Your task to perform on an android device: open the mobile data screen to see how much data has been used Image 0: 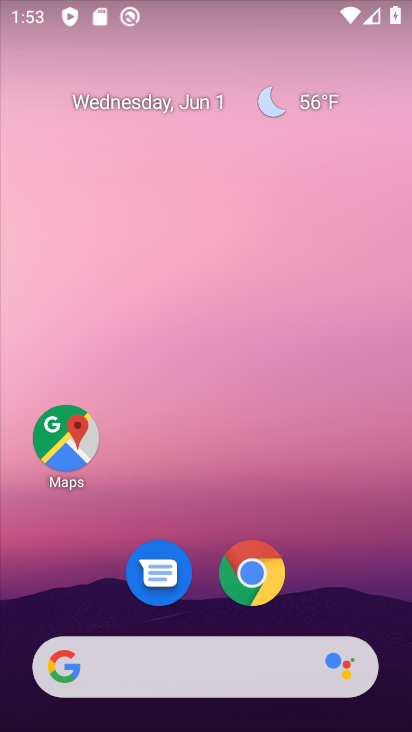
Step 0: drag from (321, 566) to (206, 6)
Your task to perform on an android device: open the mobile data screen to see how much data has been used Image 1: 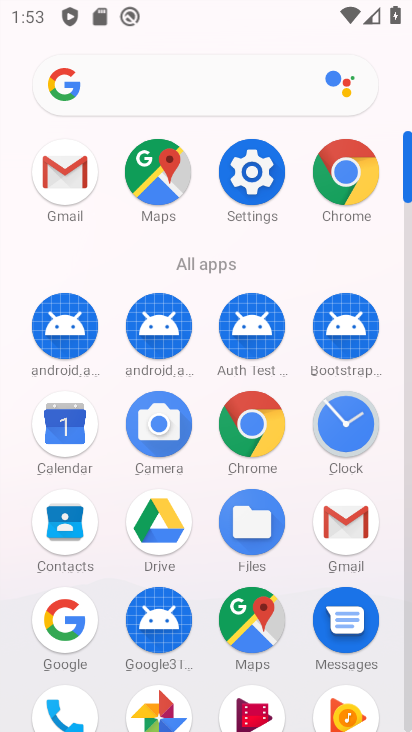
Step 1: click (259, 172)
Your task to perform on an android device: open the mobile data screen to see how much data has been used Image 2: 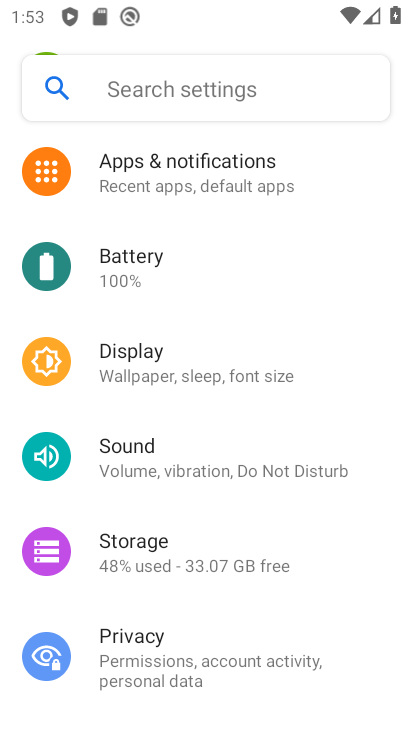
Step 2: drag from (239, 350) to (244, 642)
Your task to perform on an android device: open the mobile data screen to see how much data has been used Image 3: 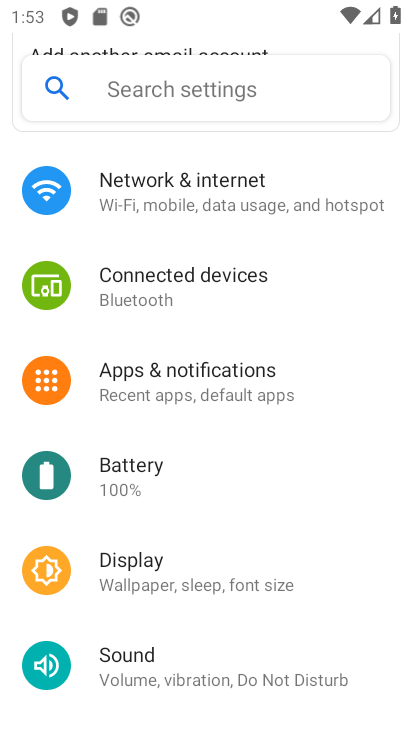
Step 3: drag from (210, 379) to (271, 647)
Your task to perform on an android device: open the mobile data screen to see how much data has been used Image 4: 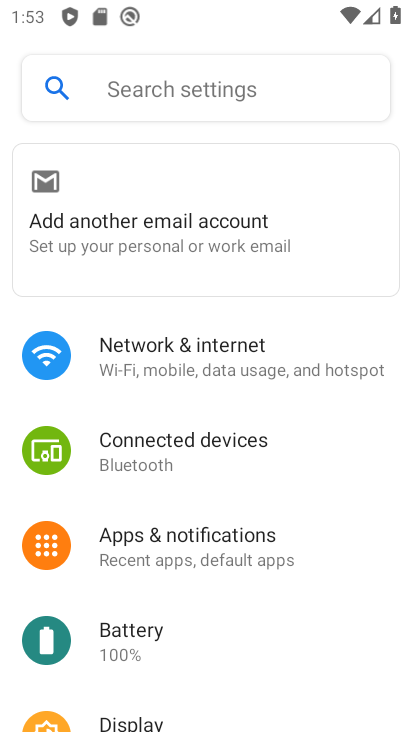
Step 4: click (223, 352)
Your task to perform on an android device: open the mobile data screen to see how much data has been used Image 5: 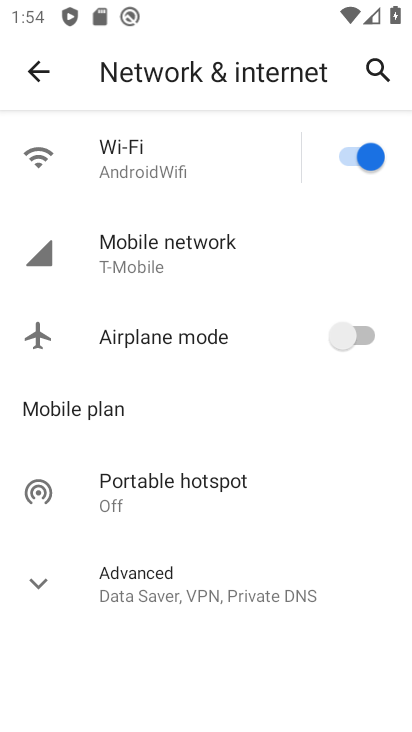
Step 5: click (154, 256)
Your task to perform on an android device: open the mobile data screen to see how much data has been used Image 6: 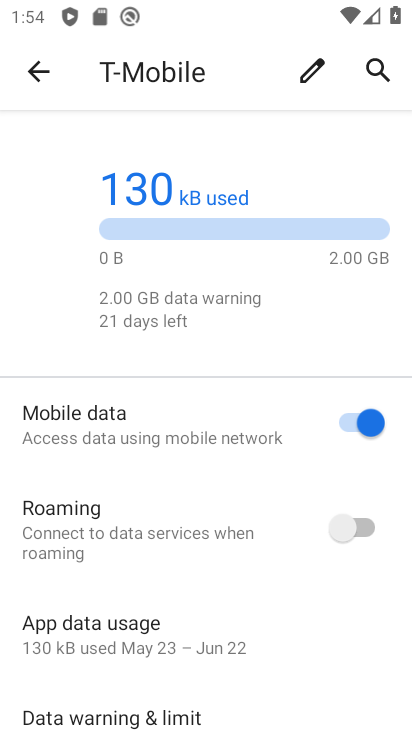
Step 6: task complete